Your task to perform on an android device: Open Yahoo.com Image 0: 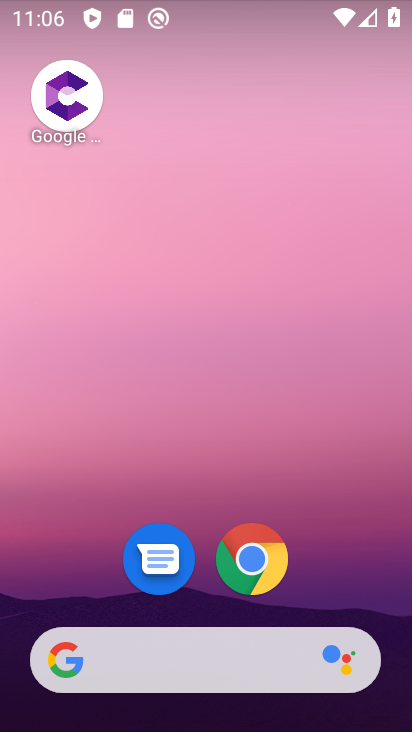
Step 0: click (275, 576)
Your task to perform on an android device: Open Yahoo.com Image 1: 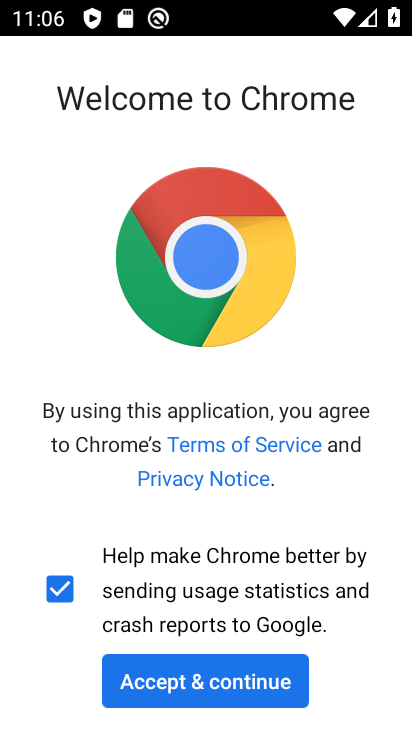
Step 1: click (212, 694)
Your task to perform on an android device: Open Yahoo.com Image 2: 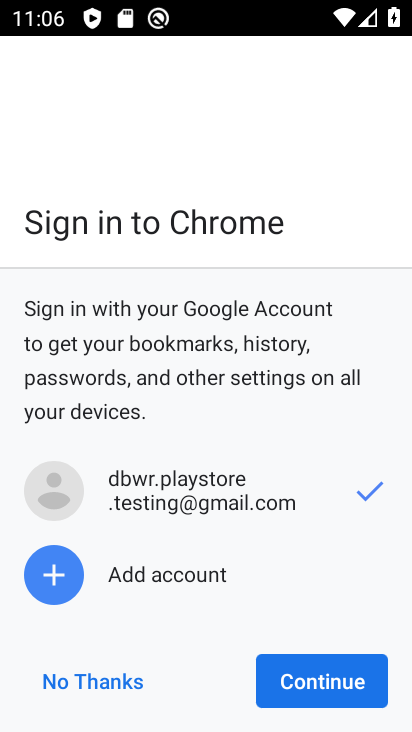
Step 2: click (321, 692)
Your task to perform on an android device: Open Yahoo.com Image 3: 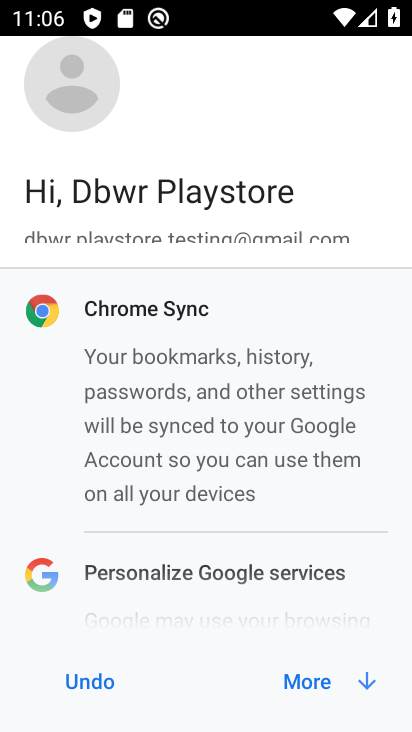
Step 3: click (322, 687)
Your task to perform on an android device: Open Yahoo.com Image 4: 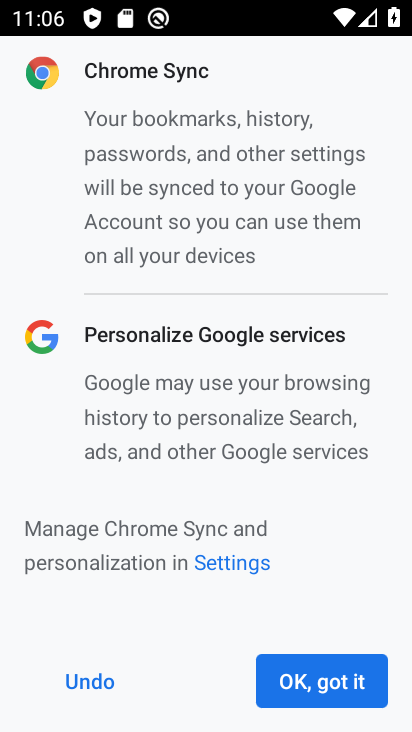
Step 4: click (322, 687)
Your task to perform on an android device: Open Yahoo.com Image 5: 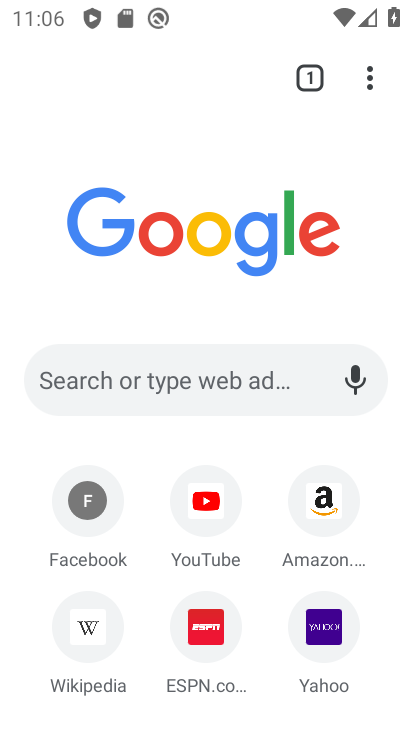
Step 5: click (326, 638)
Your task to perform on an android device: Open Yahoo.com Image 6: 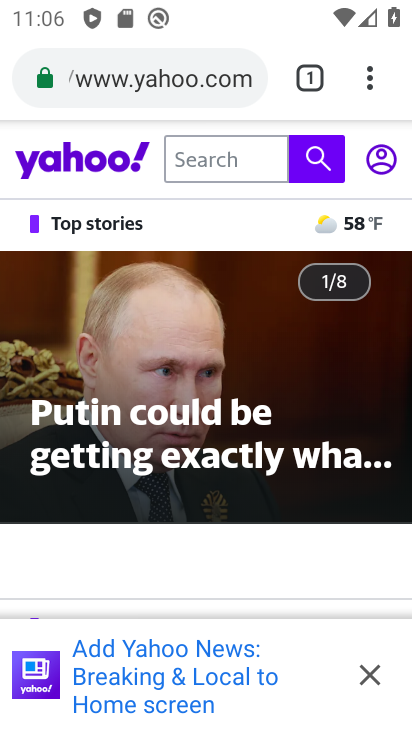
Step 6: task complete